Your task to perform on an android device: Go to Android settings Image 0: 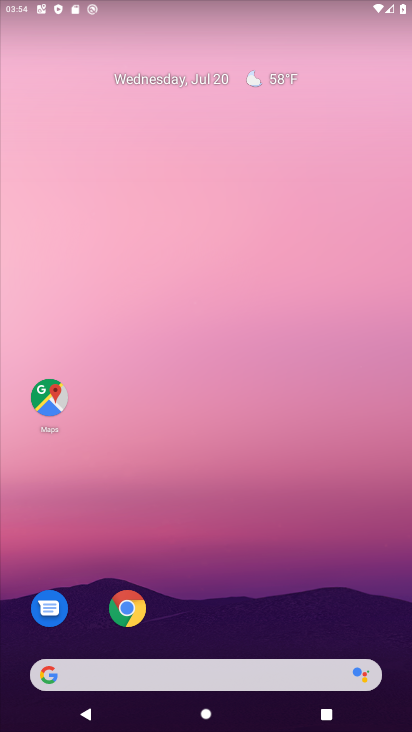
Step 0: press home button
Your task to perform on an android device: Go to Android settings Image 1: 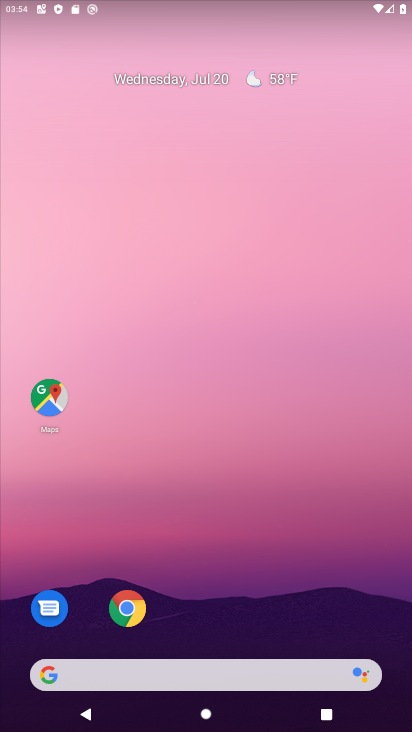
Step 1: drag from (277, 626) to (247, 88)
Your task to perform on an android device: Go to Android settings Image 2: 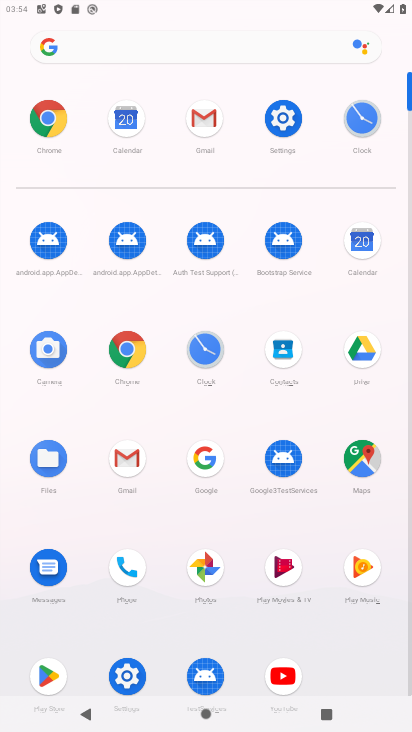
Step 2: click (288, 133)
Your task to perform on an android device: Go to Android settings Image 3: 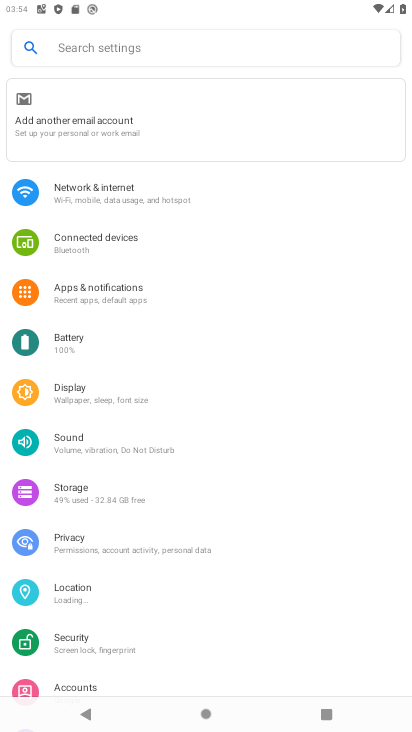
Step 3: drag from (202, 635) to (217, 377)
Your task to perform on an android device: Go to Android settings Image 4: 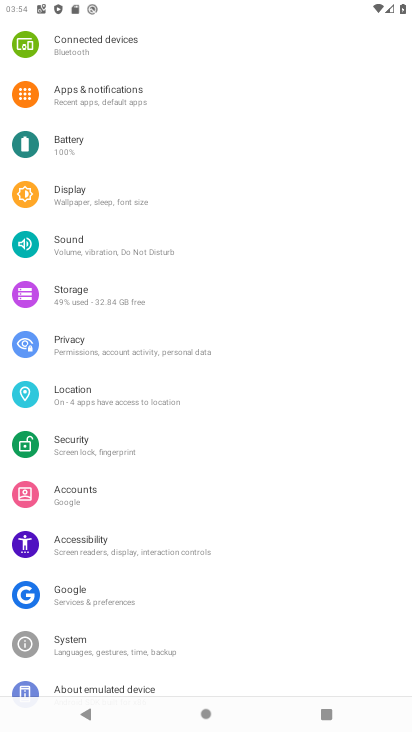
Step 4: click (175, 683)
Your task to perform on an android device: Go to Android settings Image 5: 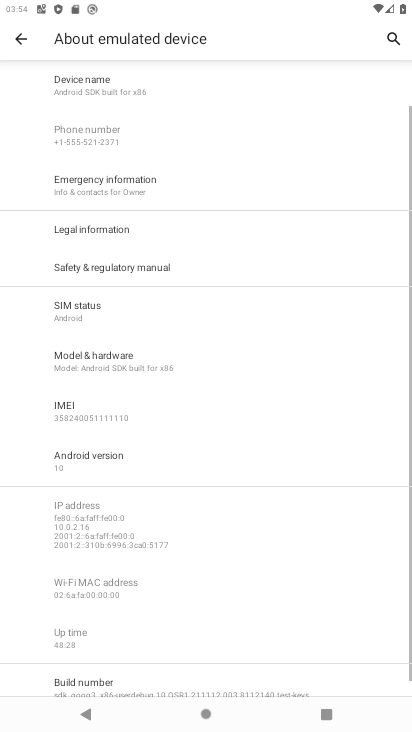
Step 5: task complete